Your task to perform on an android device: turn off picture-in-picture Image 0: 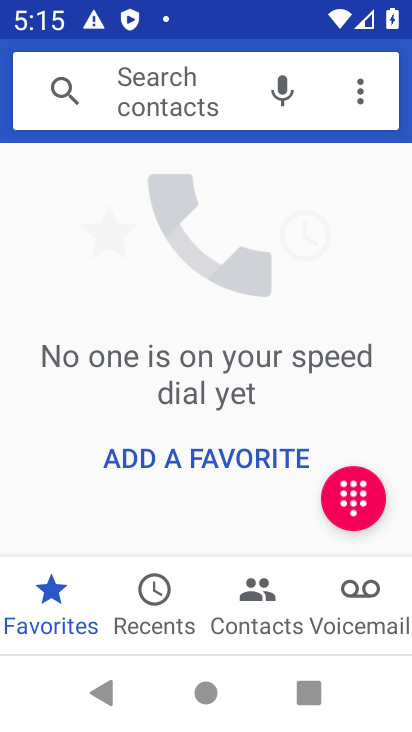
Step 0: task complete